Your task to perform on an android device: turn off smart reply in the gmail app Image 0: 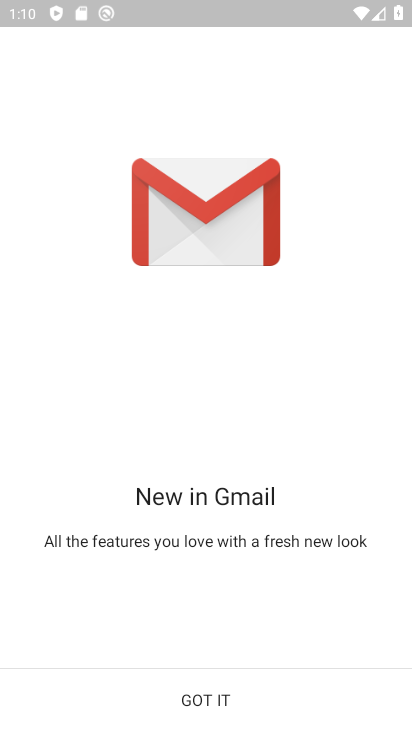
Step 0: press home button
Your task to perform on an android device: turn off smart reply in the gmail app Image 1: 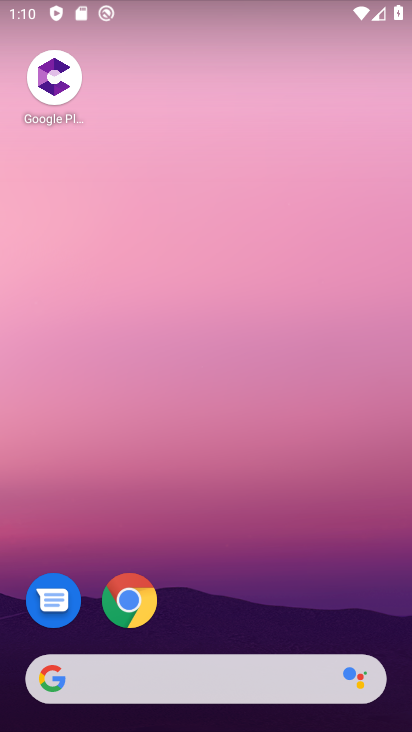
Step 1: drag from (174, 645) to (173, 254)
Your task to perform on an android device: turn off smart reply in the gmail app Image 2: 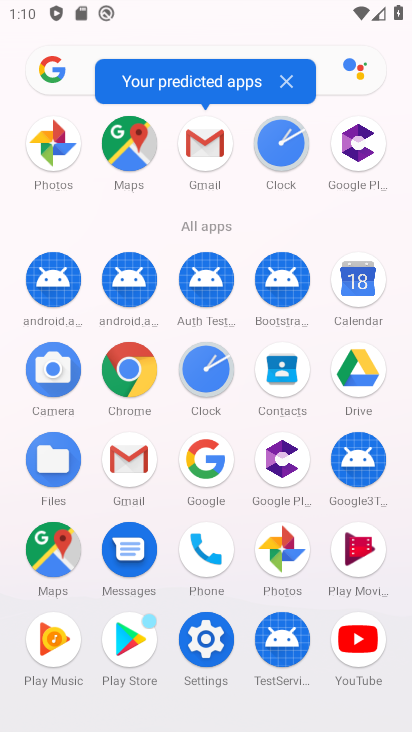
Step 2: click (202, 144)
Your task to perform on an android device: turn off smart reply in the gmail app Image 3: 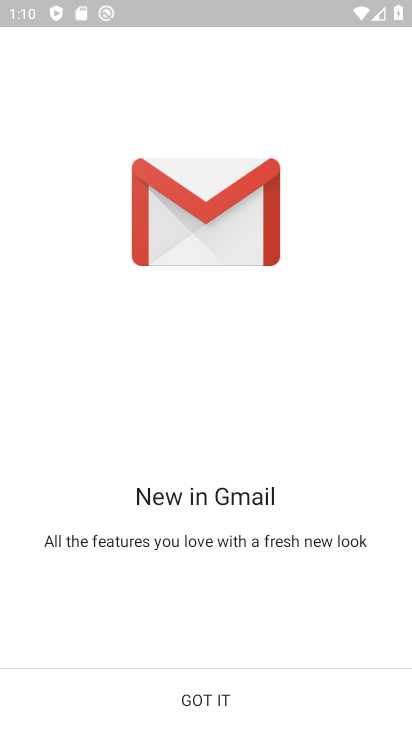
Step 3: click (202, 703)
Your task to perform on an android device: turn off smart reply in the gmail app Image 4: 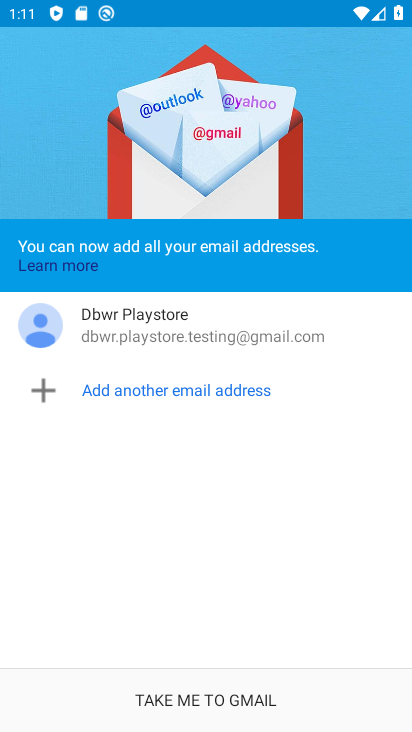
Step 4: click (197, 697)
Your task to perform on an android device: turn off smart reply in the gmail app Image 5: 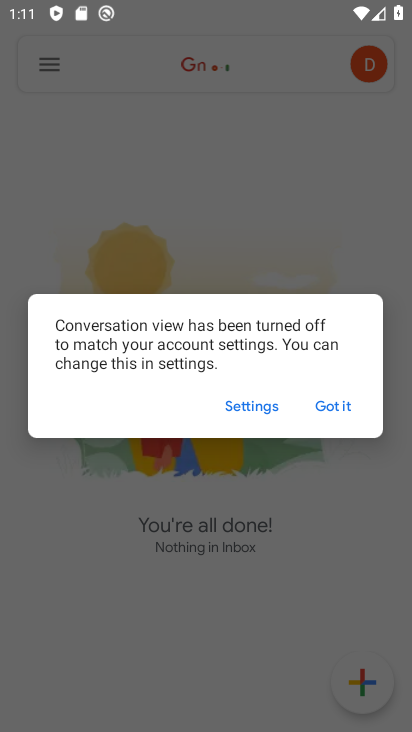
Step 5: click (315, 408)
Your task to perform on an android device: turn off smart reply in the gmail app Image 6: 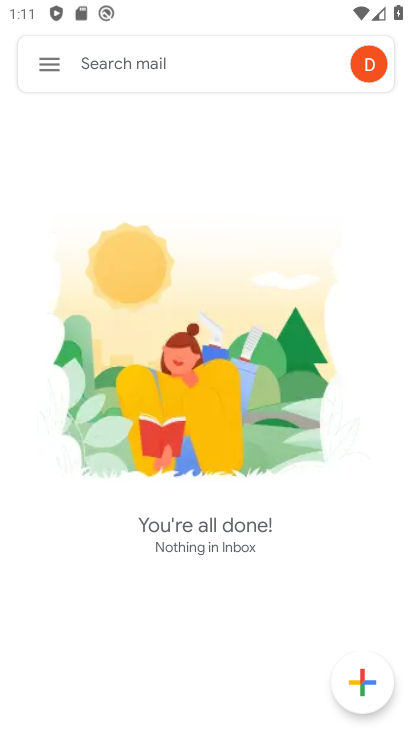
Step 6: click (42, 68)
Your task to perform on an android device: turn off smart reply in the gmail app Image 7: 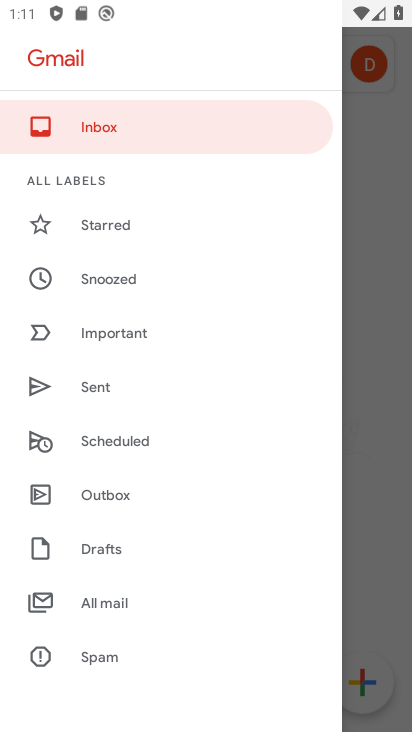
Step 7: drag from (131, 692) to (163, 260)
Your task to perform on an android device: turn off smart reply in the gmail app Image 8: 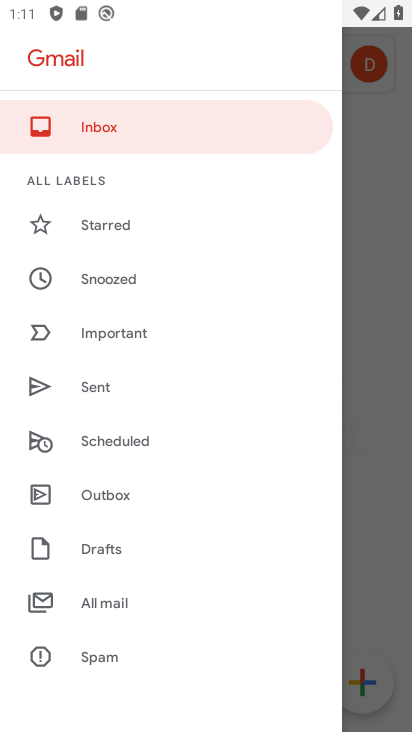
Step 8: drag from (93, 686) to (46, 326)
Your task to perform on an android device: turn off smart reply in the gmail app Image 9: 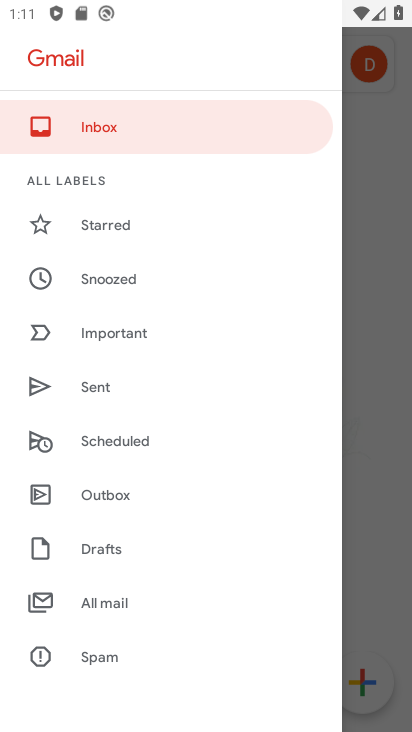
Step 9: drag from (171, 680) to (168, 272)
Your task to perform on an android device: turn off smart reply in the gmail app Image 10: 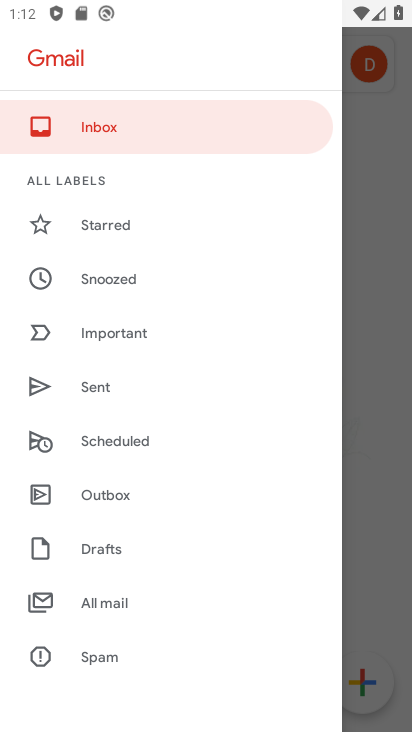
Step 10: drag from (117, 595) to (105, 334)
Your task to perform on an android device: turn off smart reply in the gmail app Image 11: 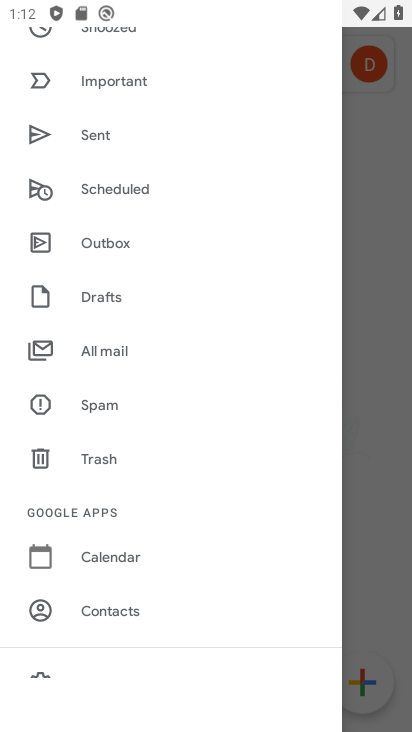
Step 11: drag from (130, 653) to (99, 319)
Your task to perform on an android device: turn off smart reply in the gmail app Image 12: 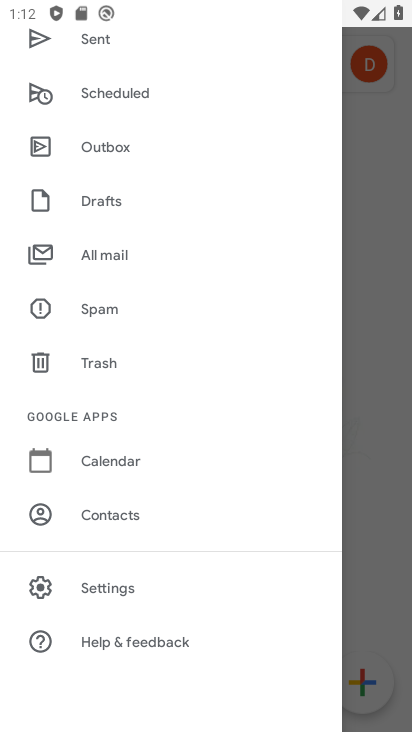
Step 12: click (98, 587)
Your task to perform on an android device: turn off smart reply in the gmail app Image 13: 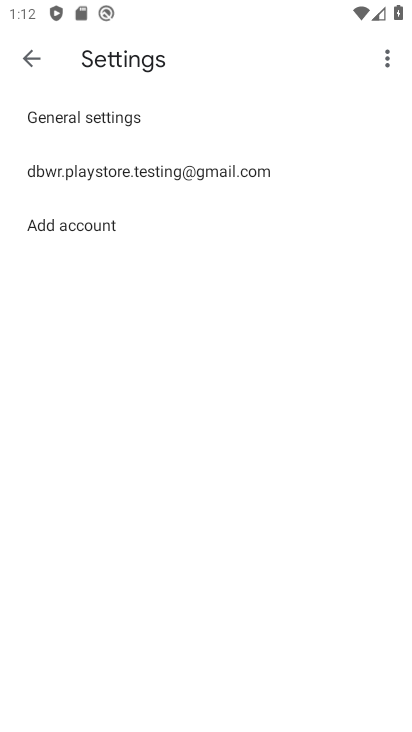
Step 13: click (79, 169)
Your task to perform on an android device: turn off smart reply in the gmail app Image 14: 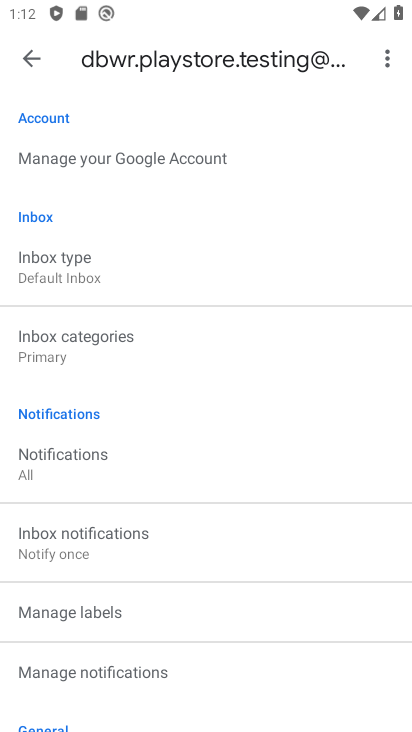
Step 14: drag from (113, 683) to (119, 338)
Your task to perform on an android device: turn off smart reply in the gmail app Image 15: 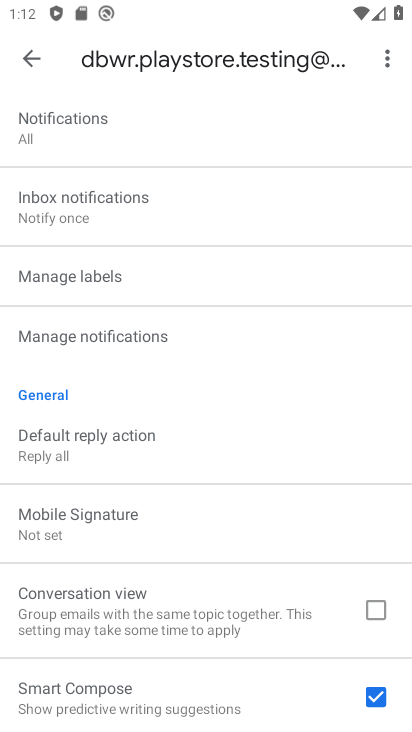
Step 15: drag from (140, 699) to (139, 385)
Your task to perform on an android device: turn off smart reply in the gmail app Image 16: 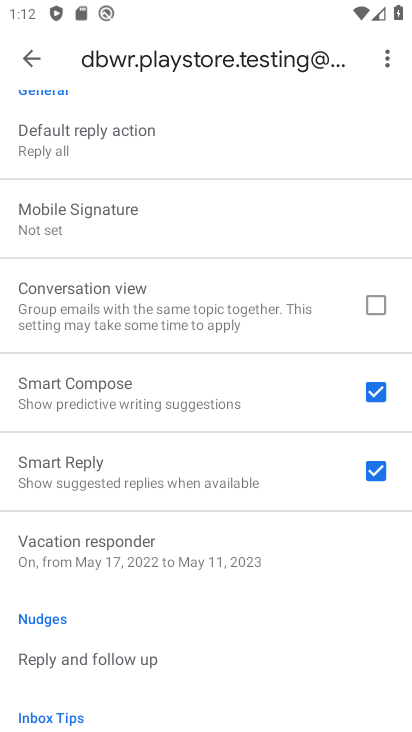
Step 16: click (379, 470)
Your task to perform on an android device: turn off smart reply in the gmail app Image 17: 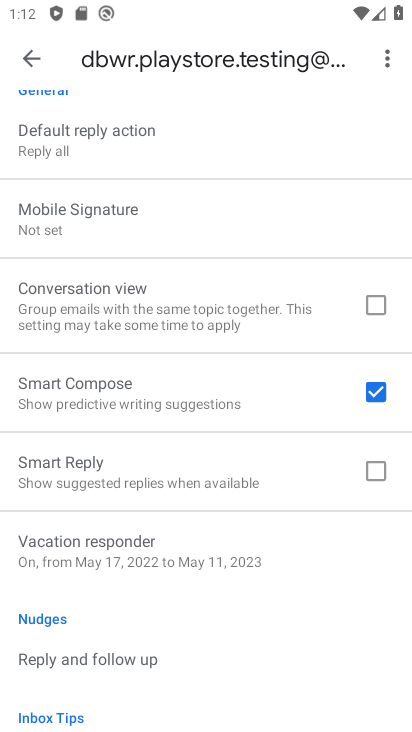
Step 17: task complete